Your task to perform on an android device: open app "Microsoft Excel" (install if not already installed) Image 0: 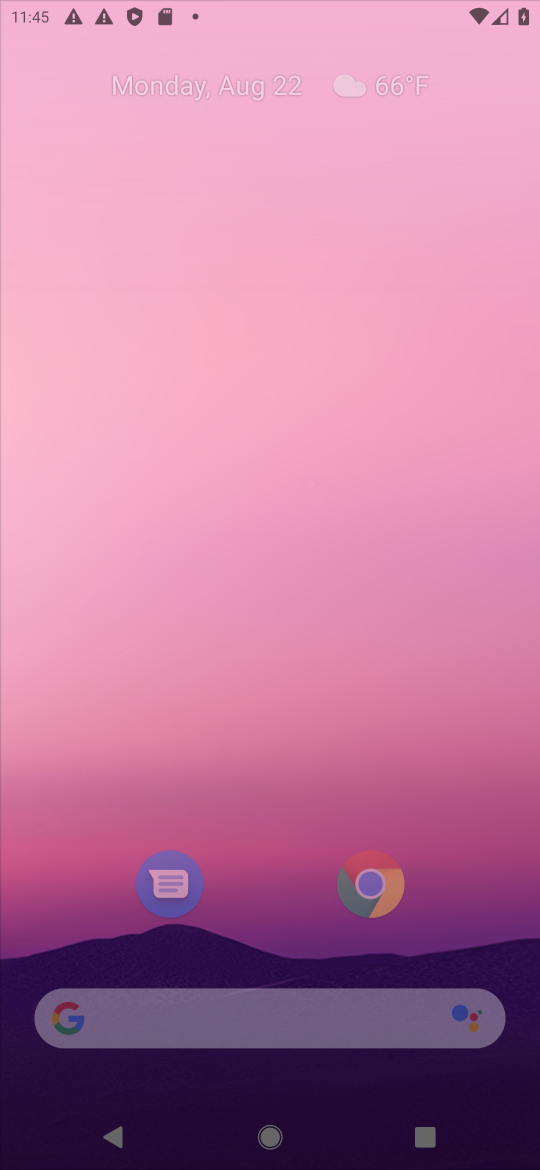
Step 0: press home button
Your task to perform on an android device: open app "Microsoft Excel" (install if not already installed) Image 1: 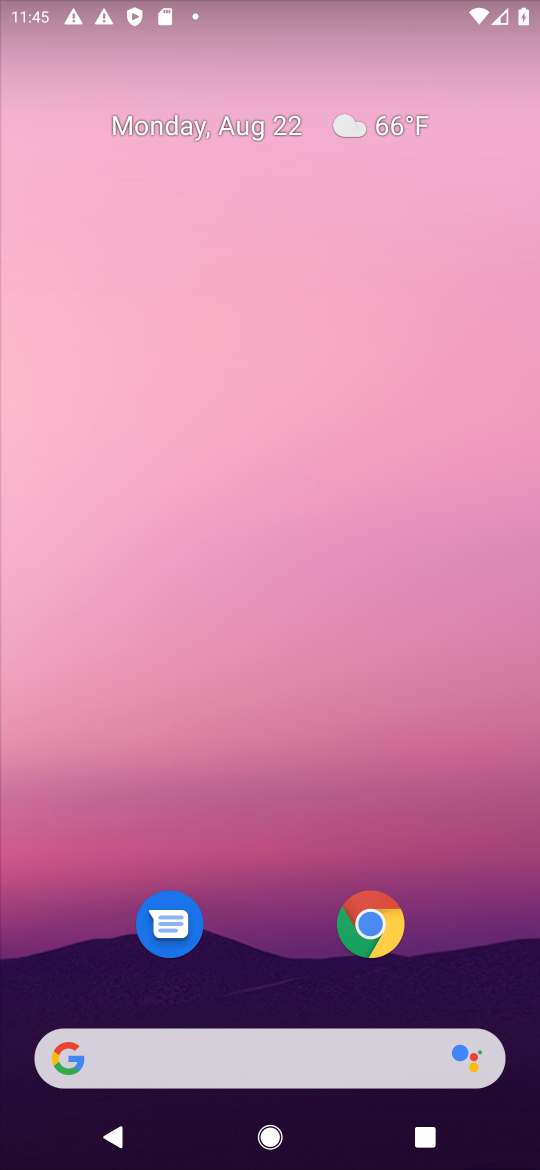
Step 1: drag from (455, 990) to (453, 73)
Your task to perform on an android device: open app "Microsoft Excel" (install if not already installed) Image 2: 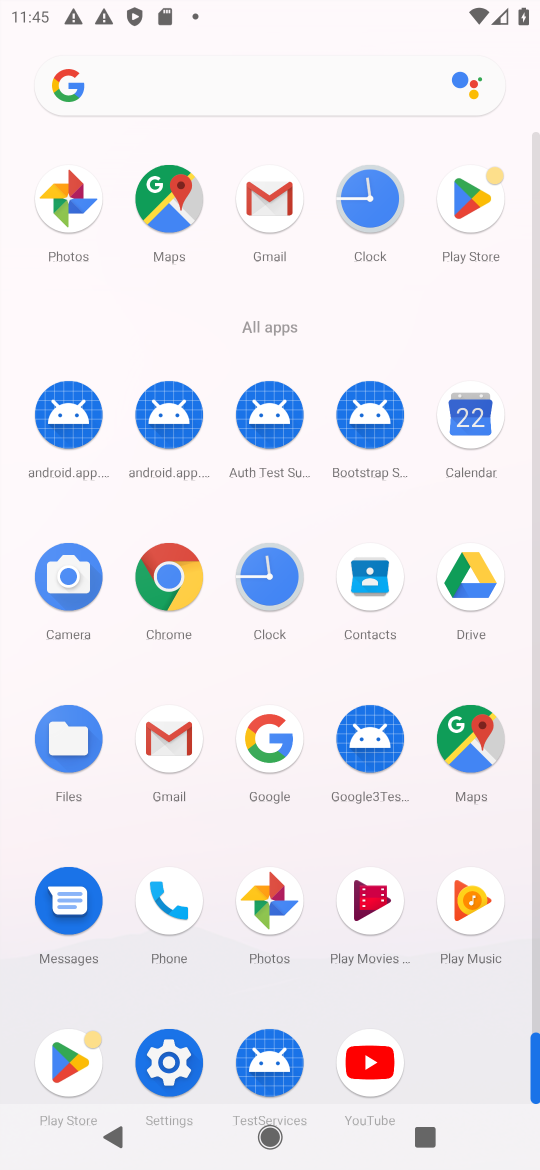
Step 2: click (464, 204)
Your task to perform on an android device: open app "Microsoft Excel" (install if not already installed) Image 3: 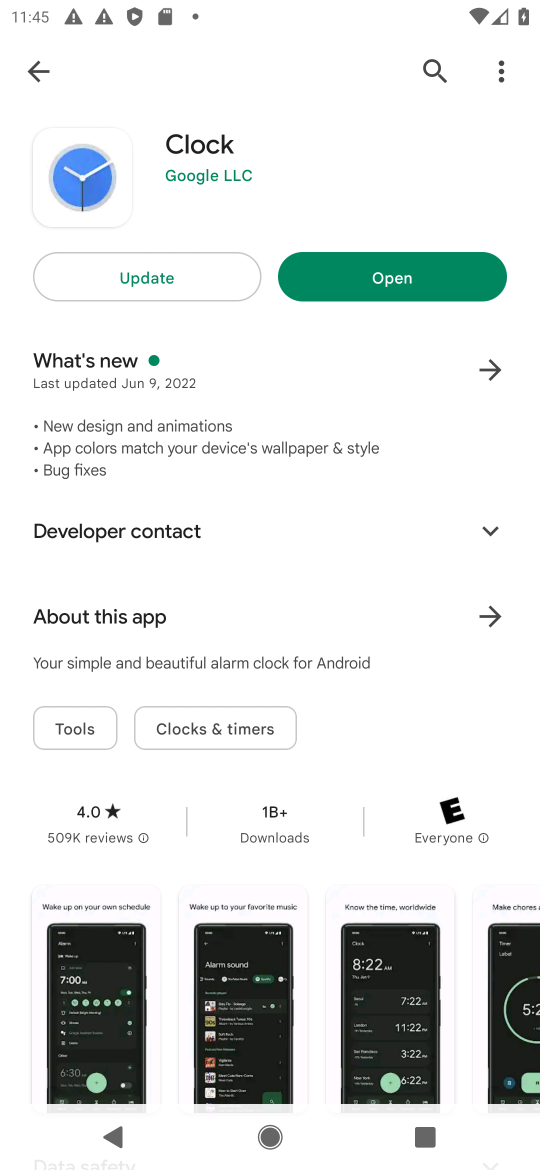
Step 3: press back button
Your task to perform on an android device: open app "Microsoft Excel" (install if not already installed) Image 4: 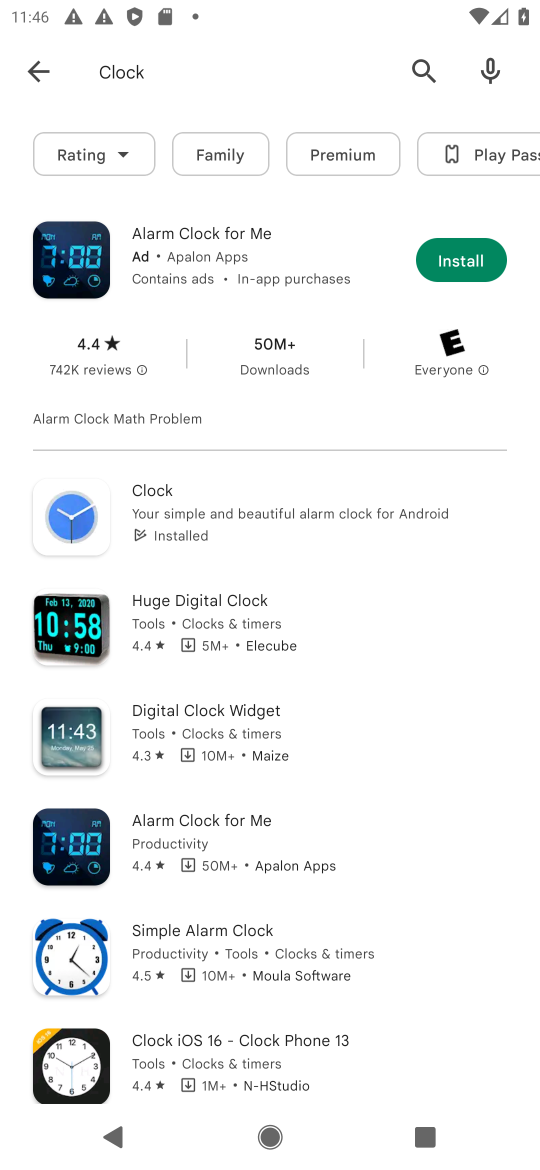
Step 4: press back button
Your task to perform on an android device: open app "Microsoft Excel" (install if not already installed) Image 5: 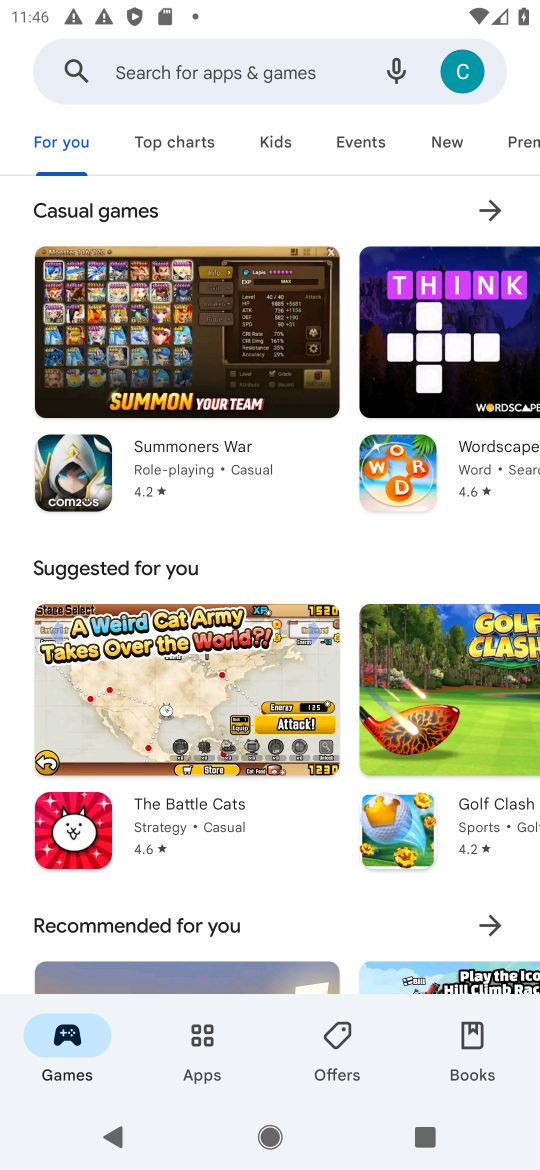
Step 5: click (191, 80)
Your task to perform on an android device: open app "Microsoft Excel" (install if not already installed) Image 6: 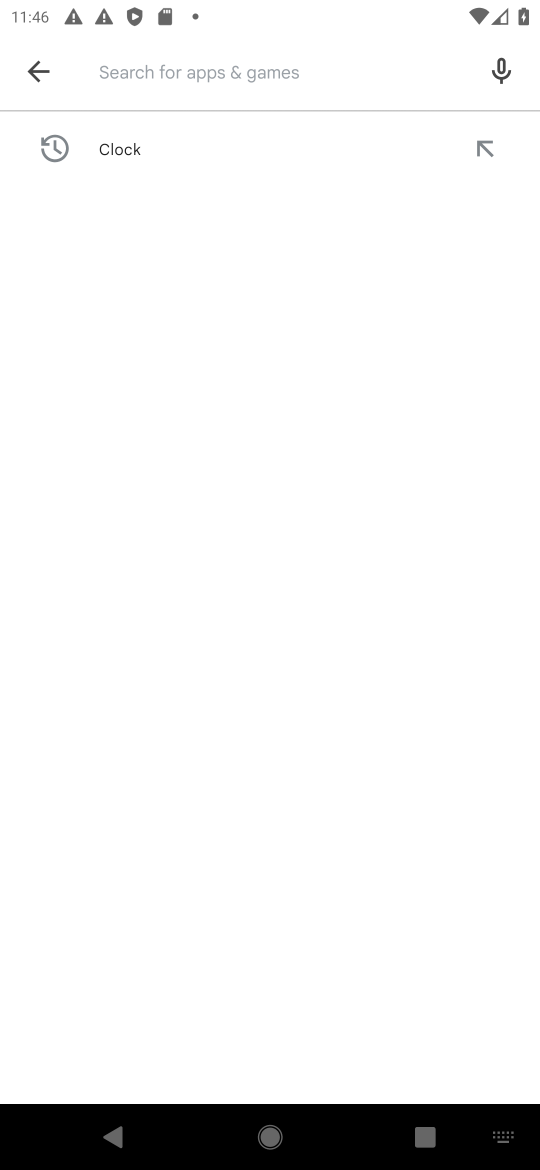
Step 6: press enter
Your task to perform on an android device: open app "Microsoft Excel" (install if not already installed) Image 7: 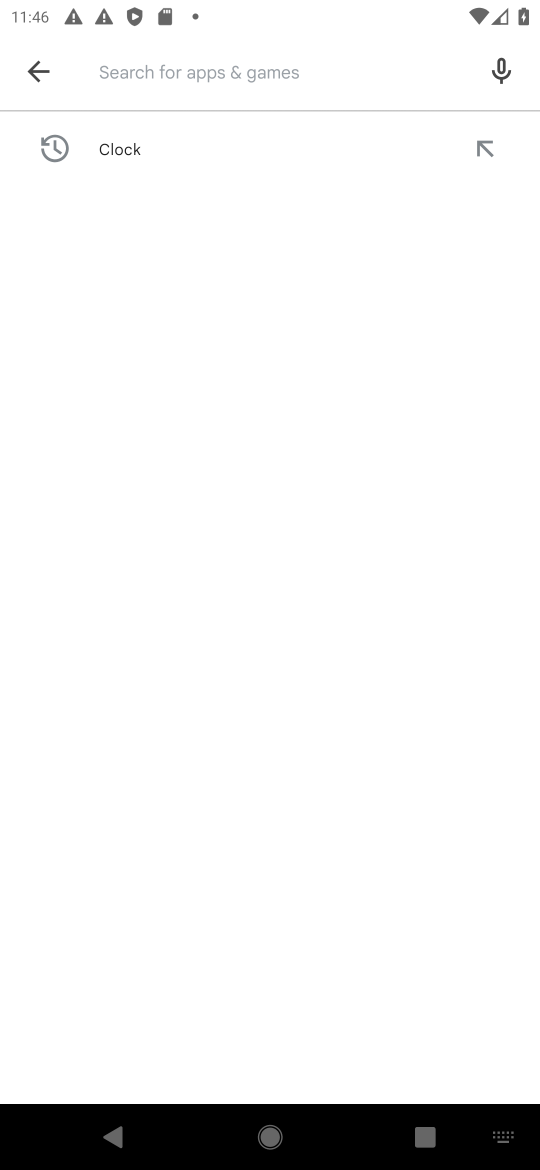
Step 7: type "Microsoft Excel"
Your task to perform on an android device: open app "Microsoft Excel" (install if not already installed) Image 8: 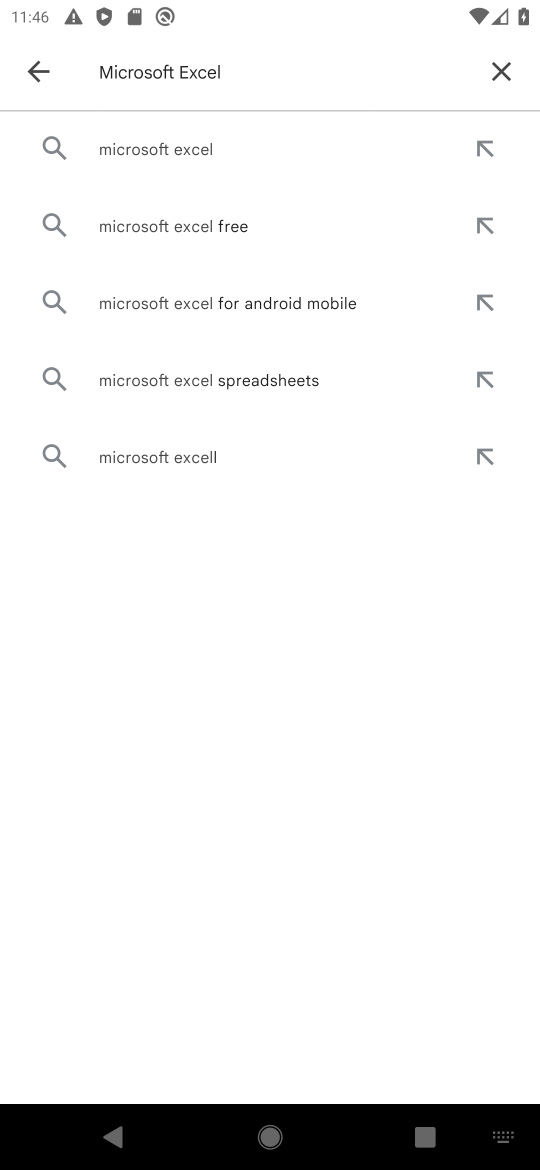
Step 8: click (171, 141)
Your task to perform on an android device: open app "Microsoft Excel" (install if not already installed) Image 9: 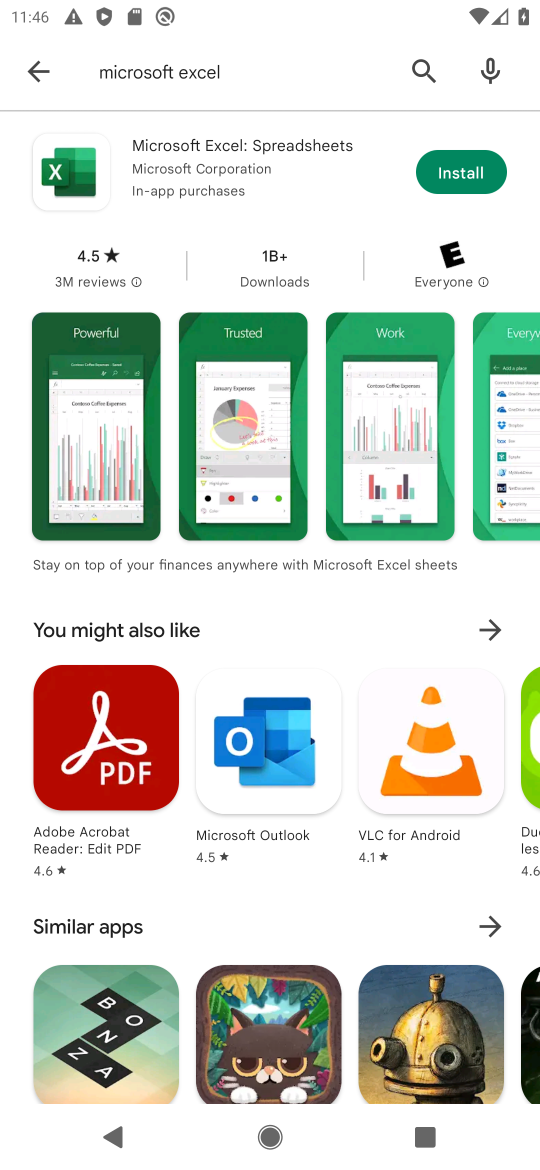
Step 9: click (443, 176)
Your task to perform on an android device: open app "Microsoft Excel" (install if not already installed) Image 10: 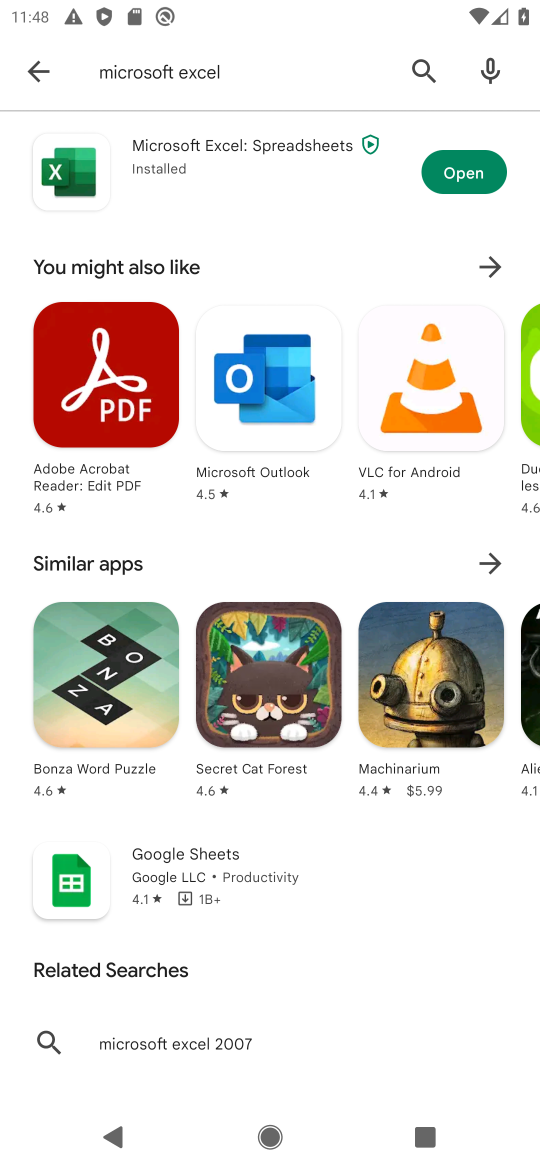
Step 10: click (462, 172)
Your task to perform on an android device: open app "Microsoft Excel" (install if not already installed) Image 11: 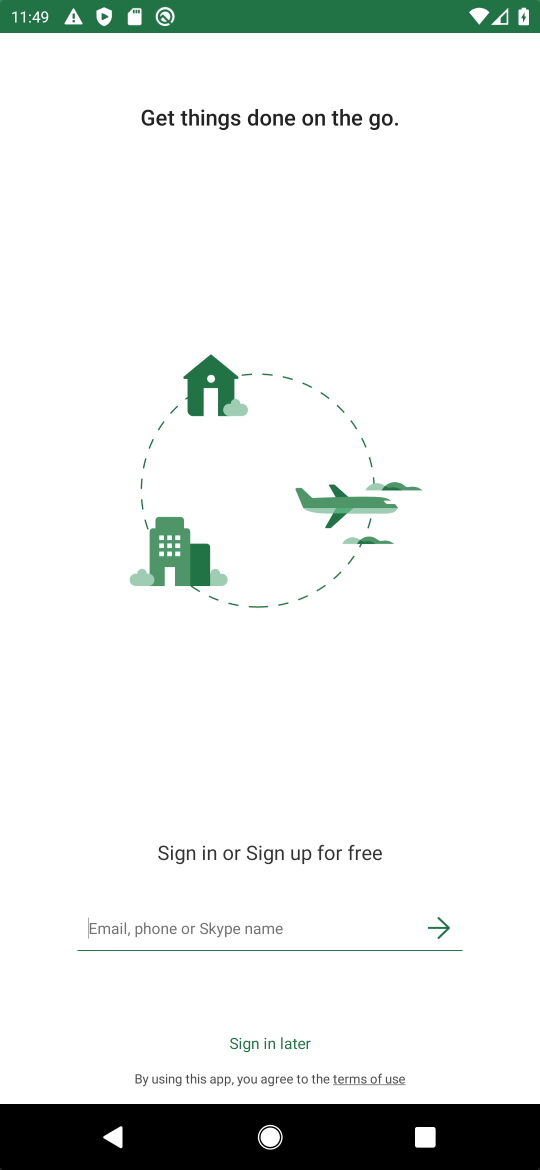
Step 11: task complete